Your task to perform on an android device: Go to Amazon Image 0: 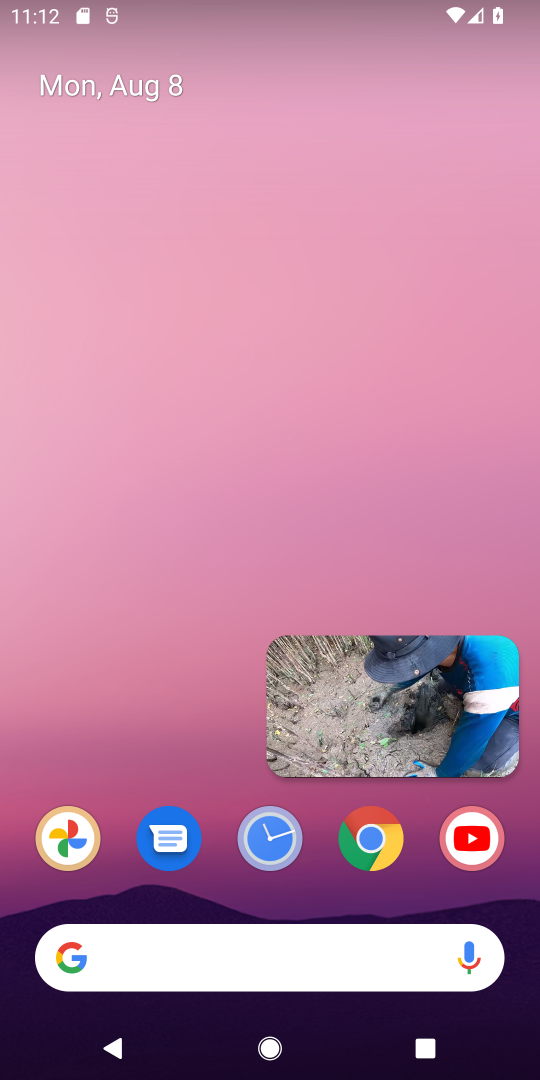
Step 0: drag from (385, 720) to (274, 929)
Your task to perform on an android device: Go to Amazon Image 1: 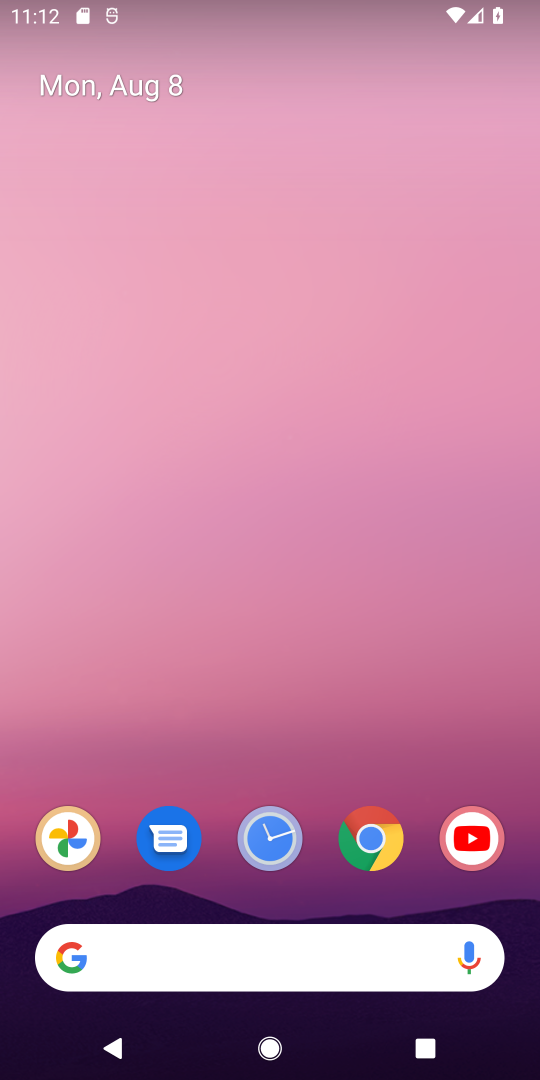
Step 1: click (374, 826)
Your task to perform on an android device: Go to Amazon Image 2: 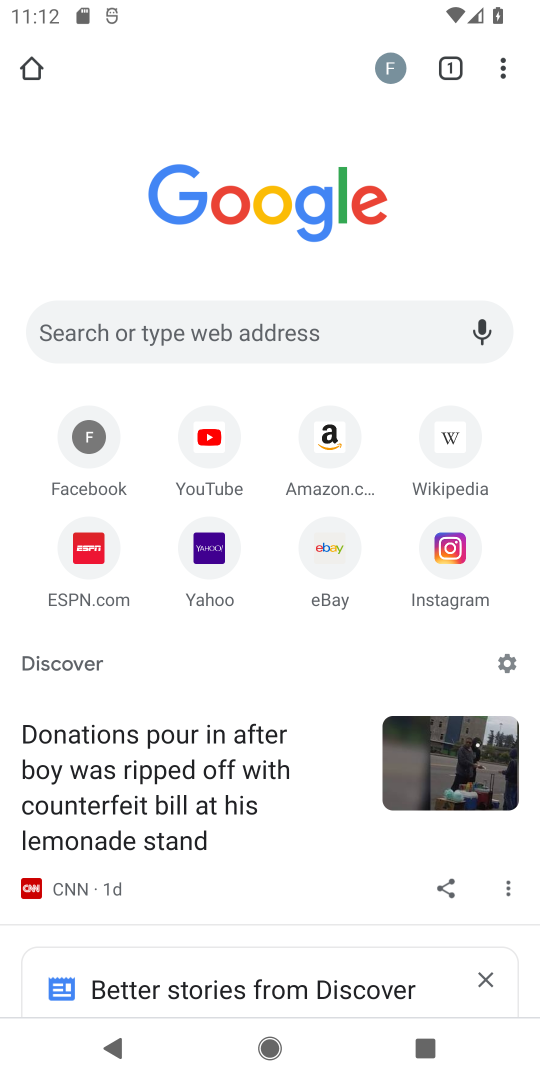
Step 2: click (343, 442)
Your task to perform on an android device: Go to Amazon Image 3: 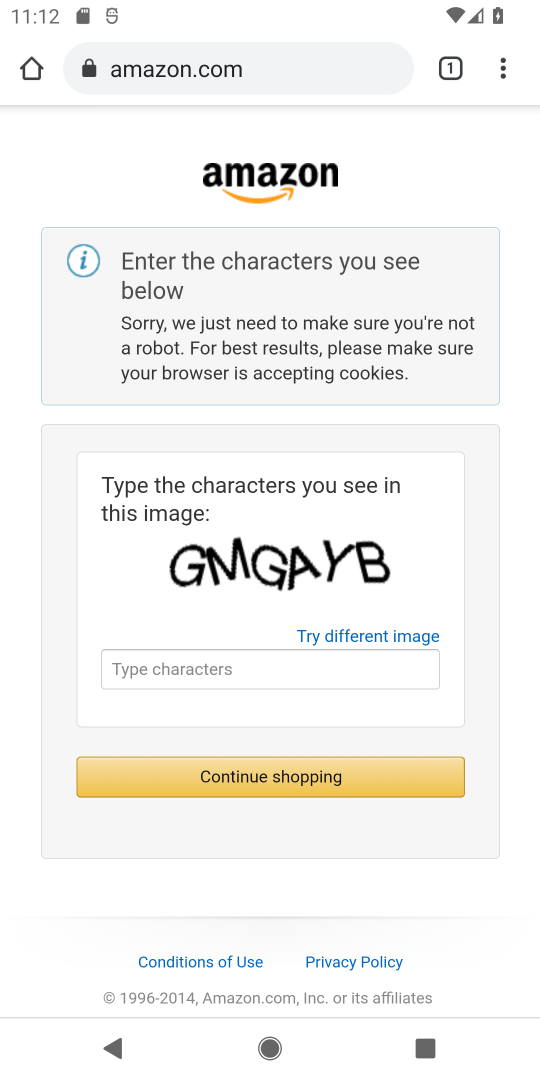
Step 3: task complete